Your task to perform on an android device: allow notifications from all sites in the chrome app Image 0: 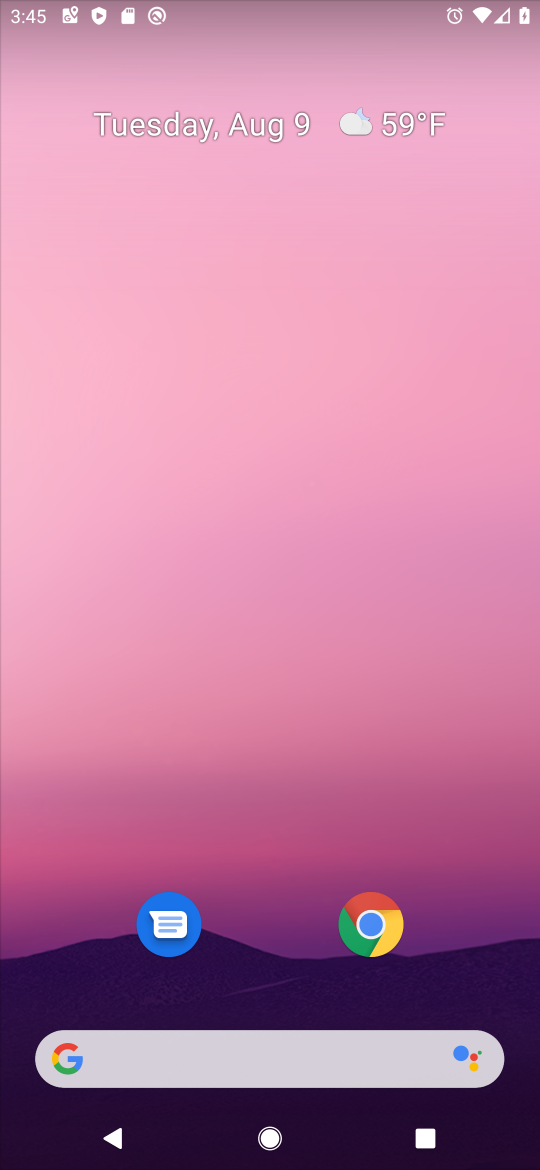
Step 0: click (373, 925)
Your task to perform on an android device: allow notifications from all sites in the chrome app Image 1: 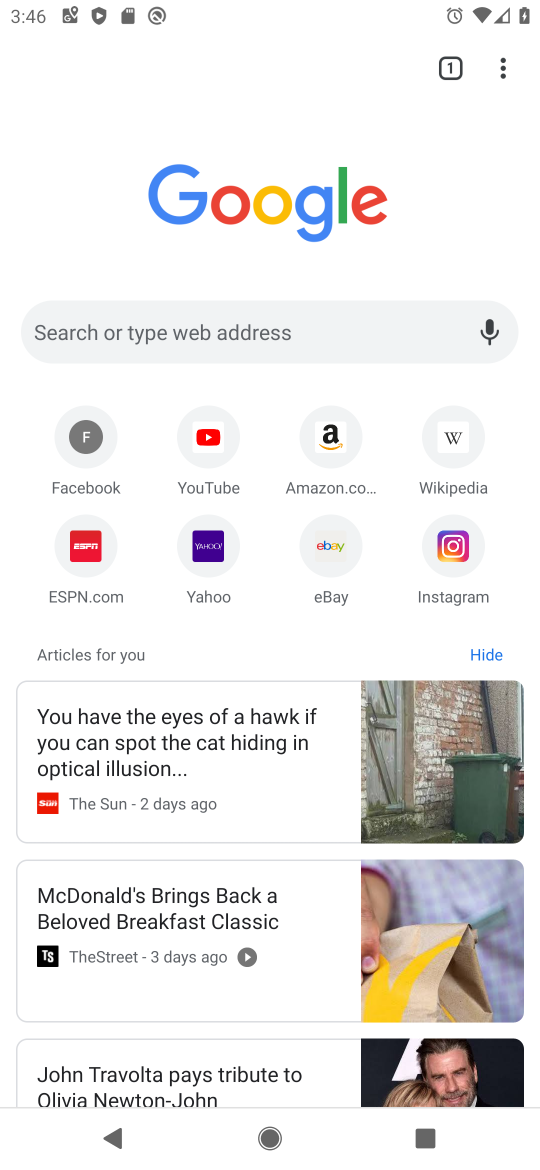
Step 1: click (508, 75)
Your task to perform on an android device: allow notifications from all sites in the chrome app Image 2: 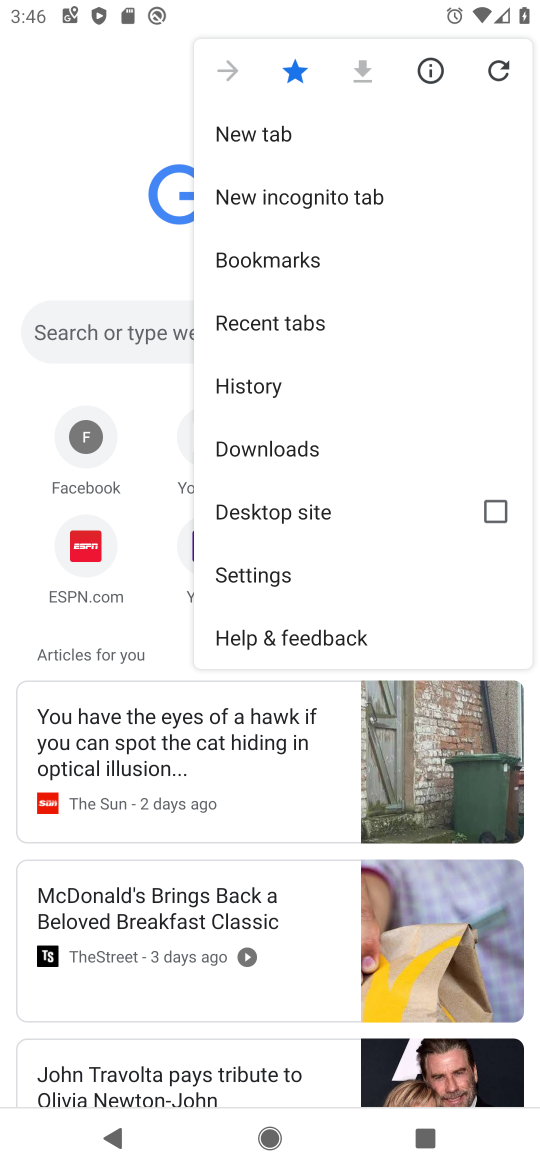
Step 2: click (286, 575)
Your task to perform on an android device: allow notifications from all sites in the chrome app Image 3: 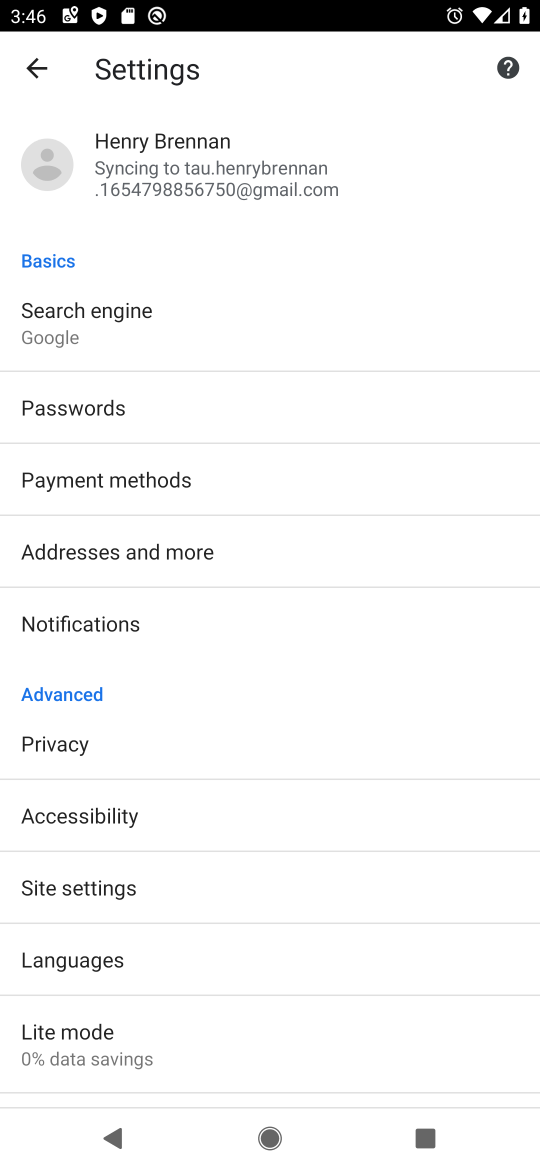
Step 3: click (250, 613)
Your task to perform on an android device: allow notifications from all sites in the chrome app Image 4: 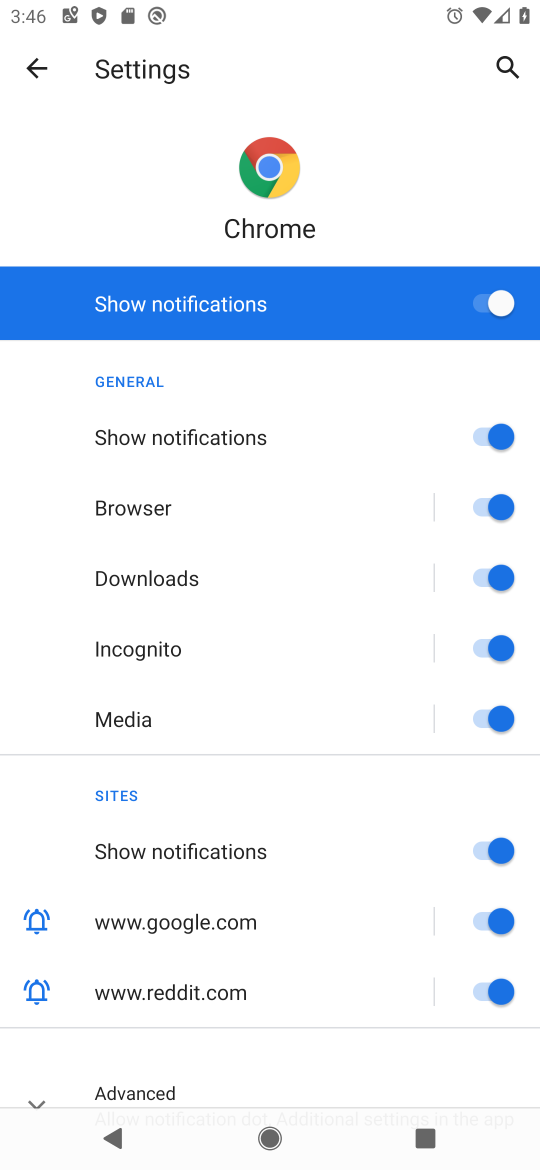
Step 4: task complete